Your task to perform on an android device: Open accessibility settings Image 0: 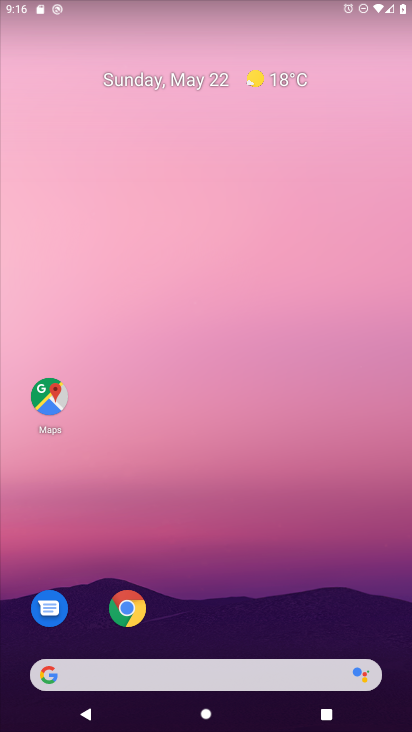
Step 0: drag from (236, 726) to (254, 18)
Your task to perform on an android device: Open accessibility settings Image 1: 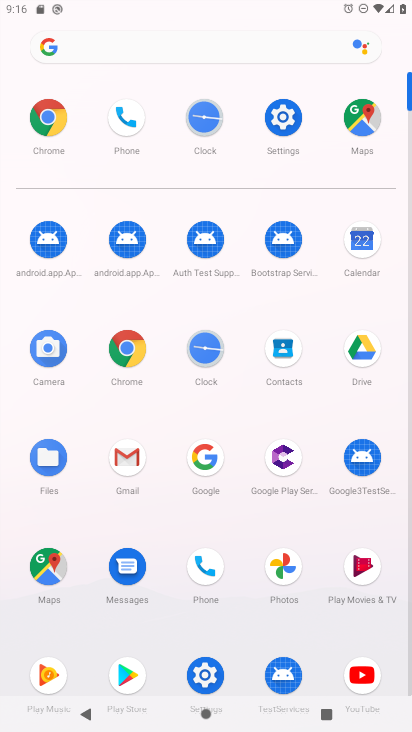
Step 1: click (278, 111)
Your task to perform on an android device: Open accessibility settings Image 2: 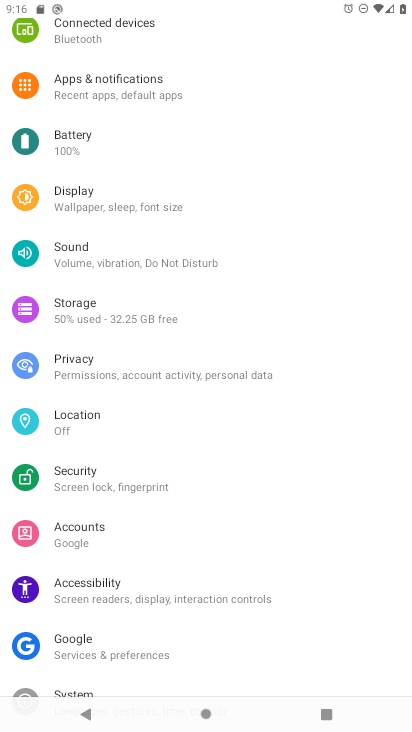
Step 2: drag from (168, 634) to (174, 289)
Your task to perform on an android device: Open accessibility settings Image 3: 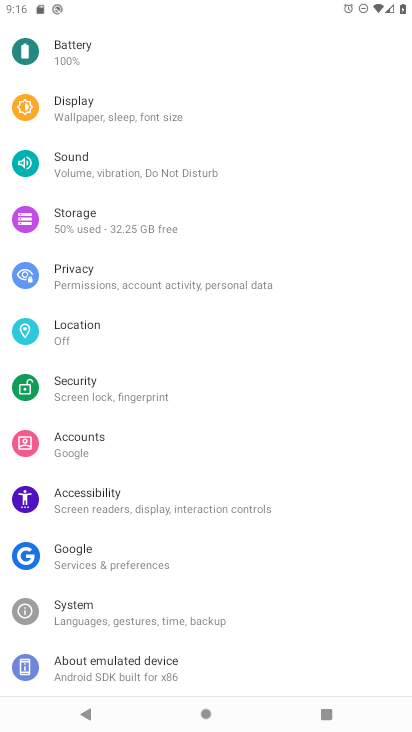
Step 3: click (121, 496)
Your task to perform on an android device: Open accessibility settings Image 4: 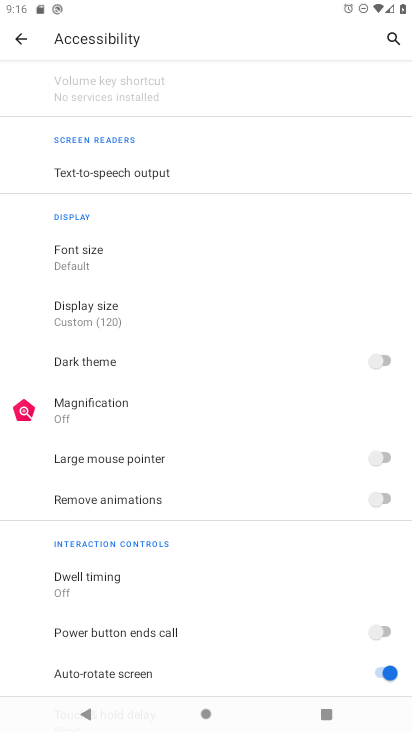
Step 4: task complete